Your task to perform on an android device: Search for "macbook pro 15 inch" on ebay.com, select the first entry, and add it to the cart. Image 0: 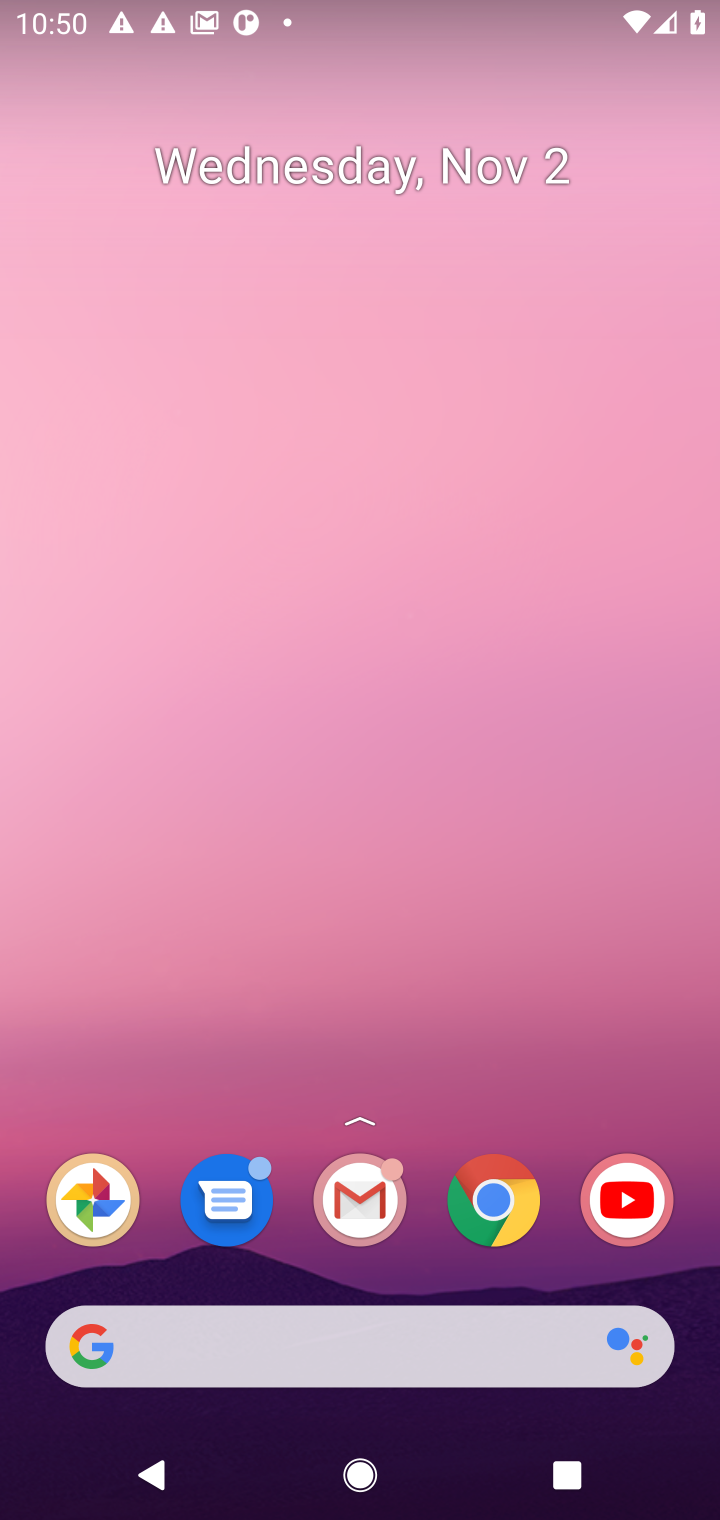
Step 0: click (497, 1182)
Your task to perform on an android device: Search for "macbook pro 15 inch" on ebay.com, select the first entry, and add it to the cart. Image 1: 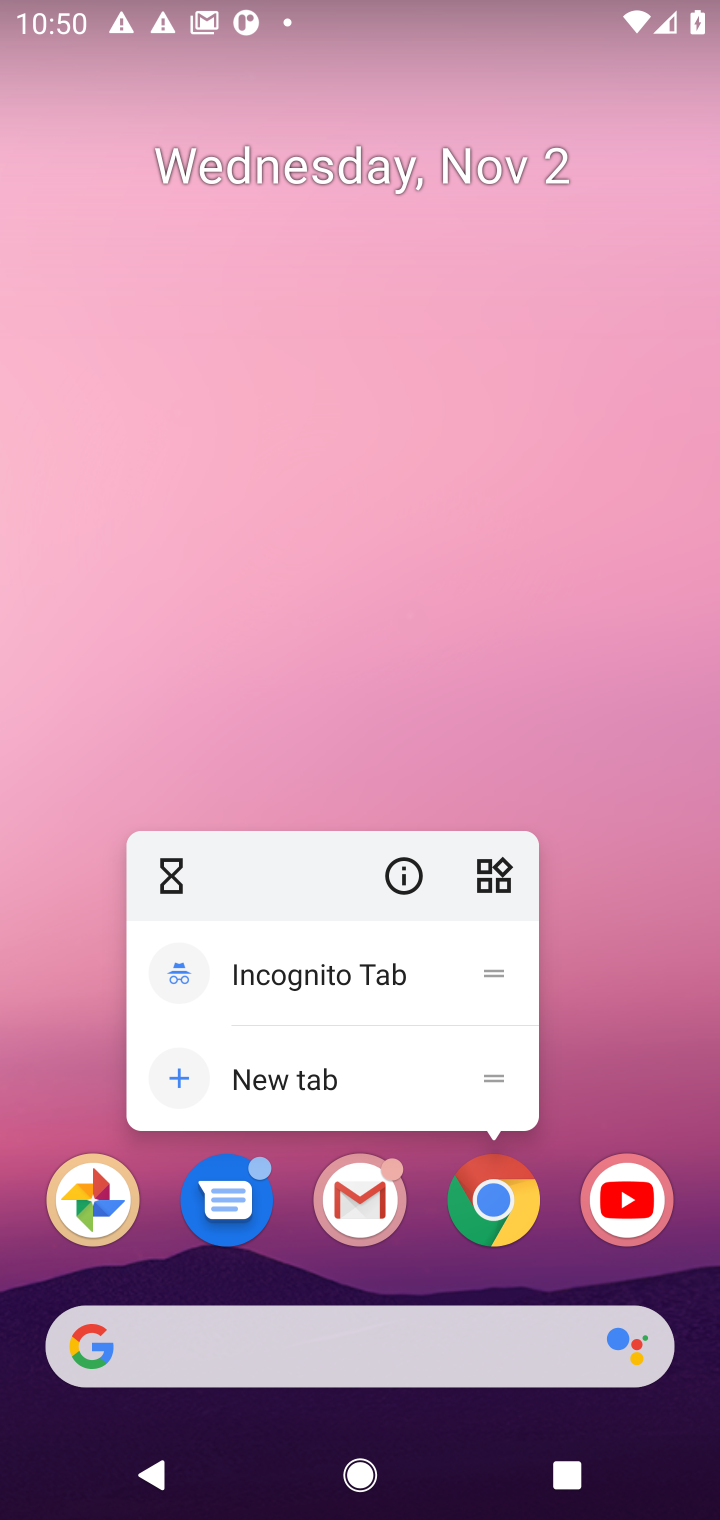
Step 1: click (497, 1182)
Your task to perform on an android device: Search for "macbook pro 15 inch" on ebay.com, select the first entry, and add it to the cart. Image 2: 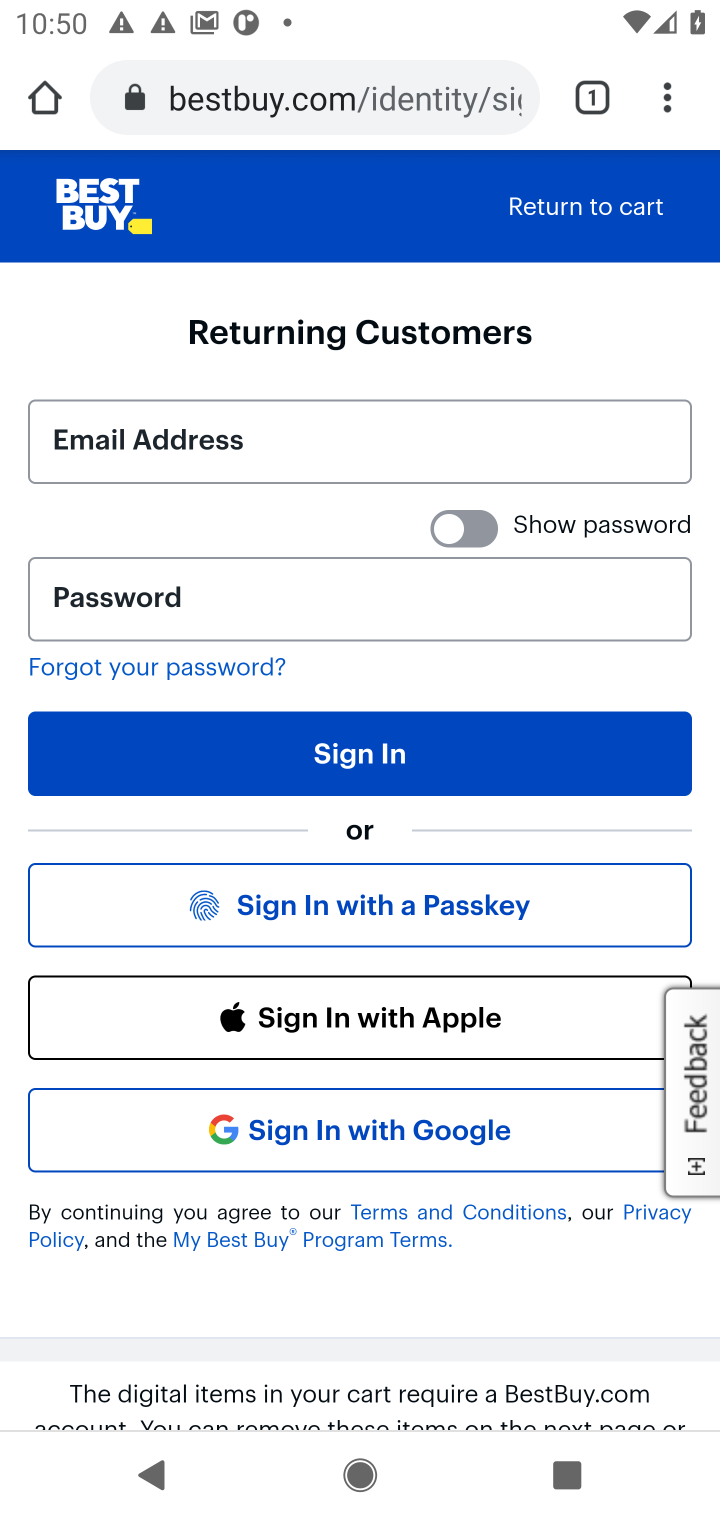
Step 2: click (404, 95)
Your task to perform on an android device: Search for "macbook pro 15 inch" on ebay.com, select the first entry, and add it to the cart. Image 3: 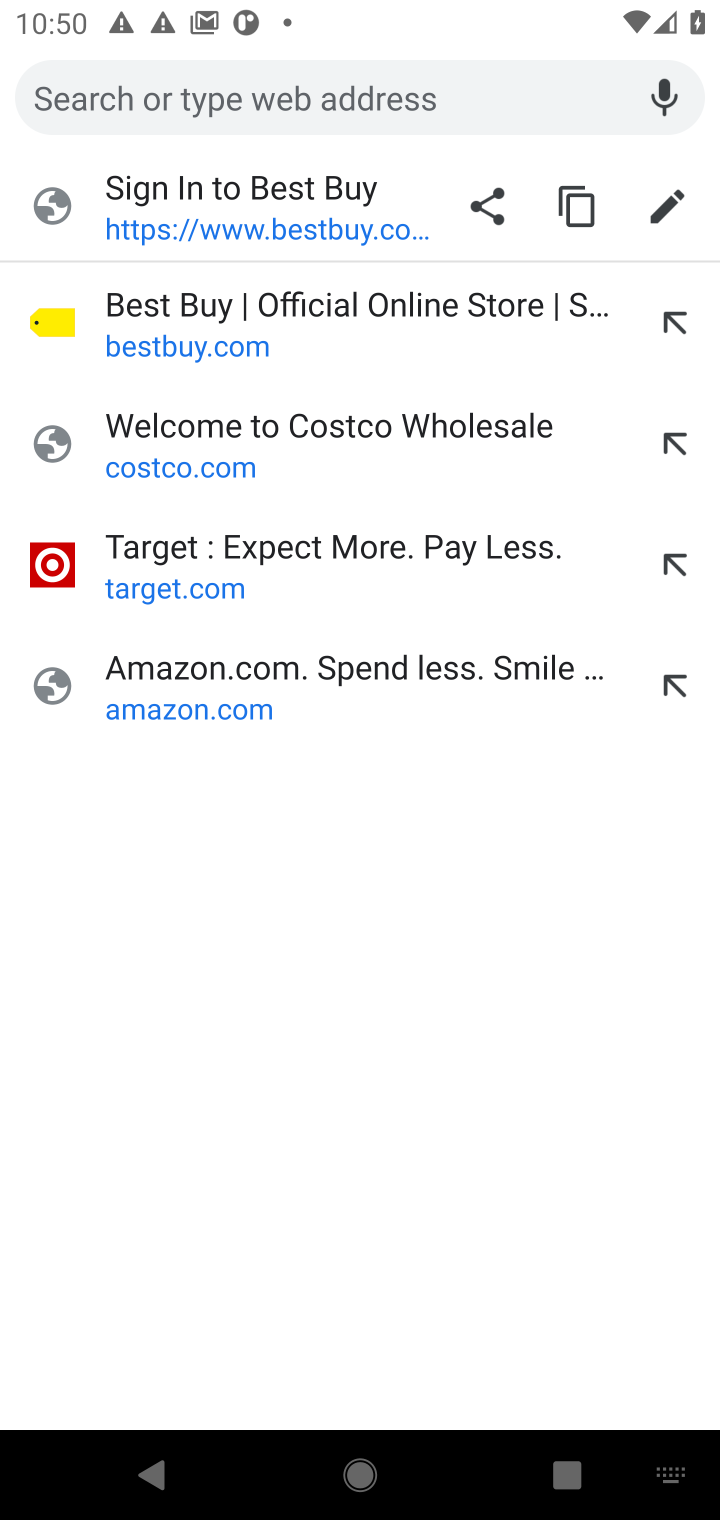
Step 3: type "ebay.com"
Your task to perform on an android device: Search for "macbook pro 15 inch" on ebay.com, select the first entry, and add it to the cart. Image 4: 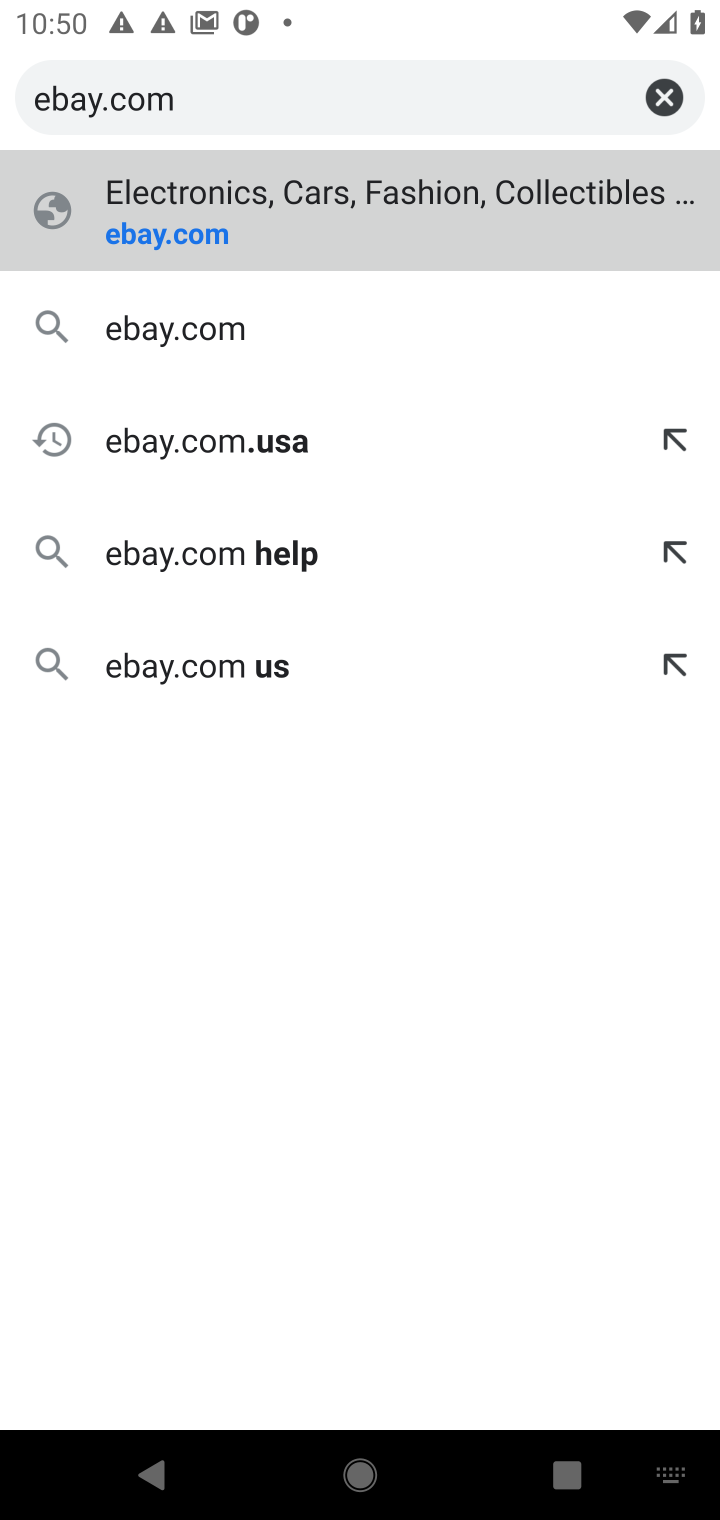
Step 4: press enter
Your task to perform on an android device: Search for "macbook pro 15 inch" on ebay.com, select the first entry, and add it to the cart. Image 5: 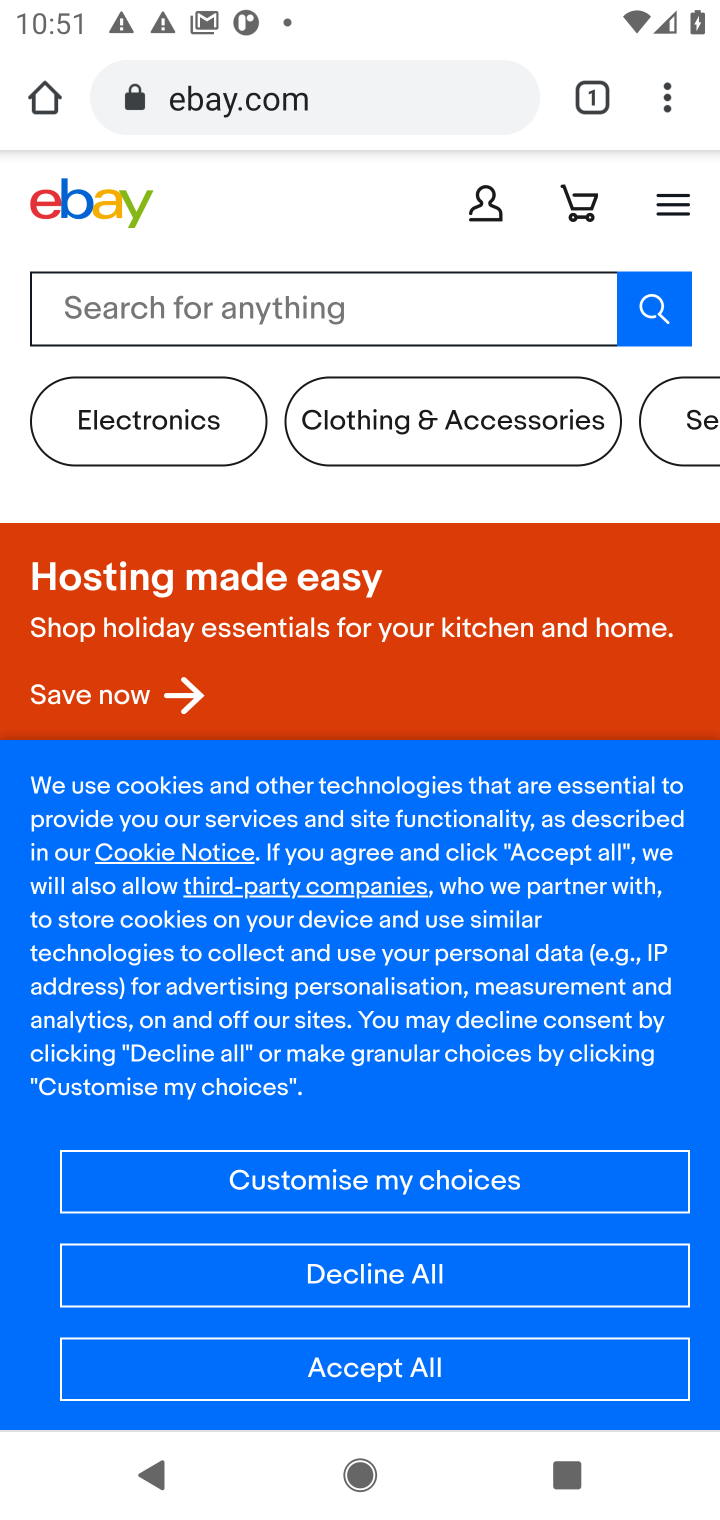
Step 5: click (312, 298)
Your task to perform on an android device: Search for "macbook pro 15 inch" on ebay.com, select the first entry, and add it to the cart. Image 6: 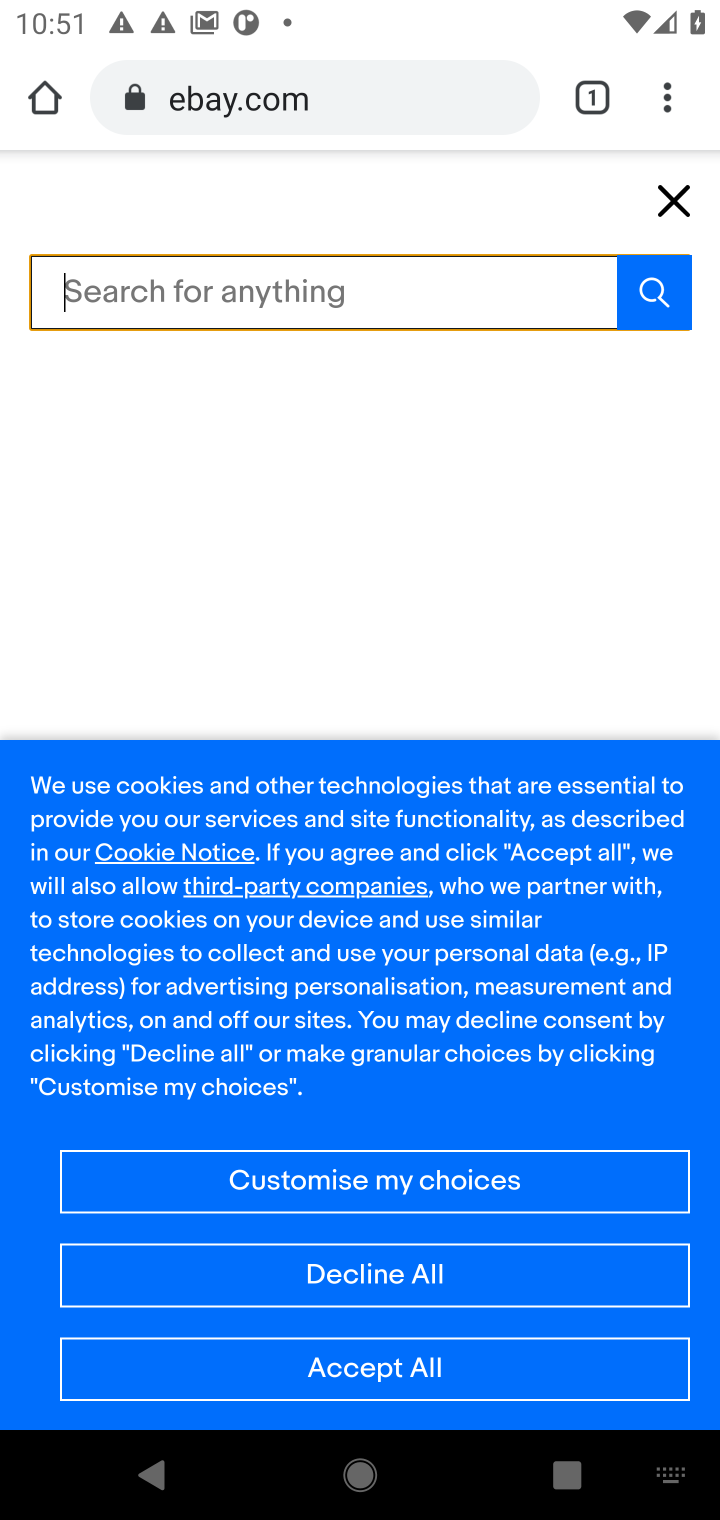
Step 6: type "macbook pro 15 inch"
Your task to perform on an android device: Search for "macbook pro 15 inch" on ebay.com, select the first entry, and add it to the cart. Image 7: 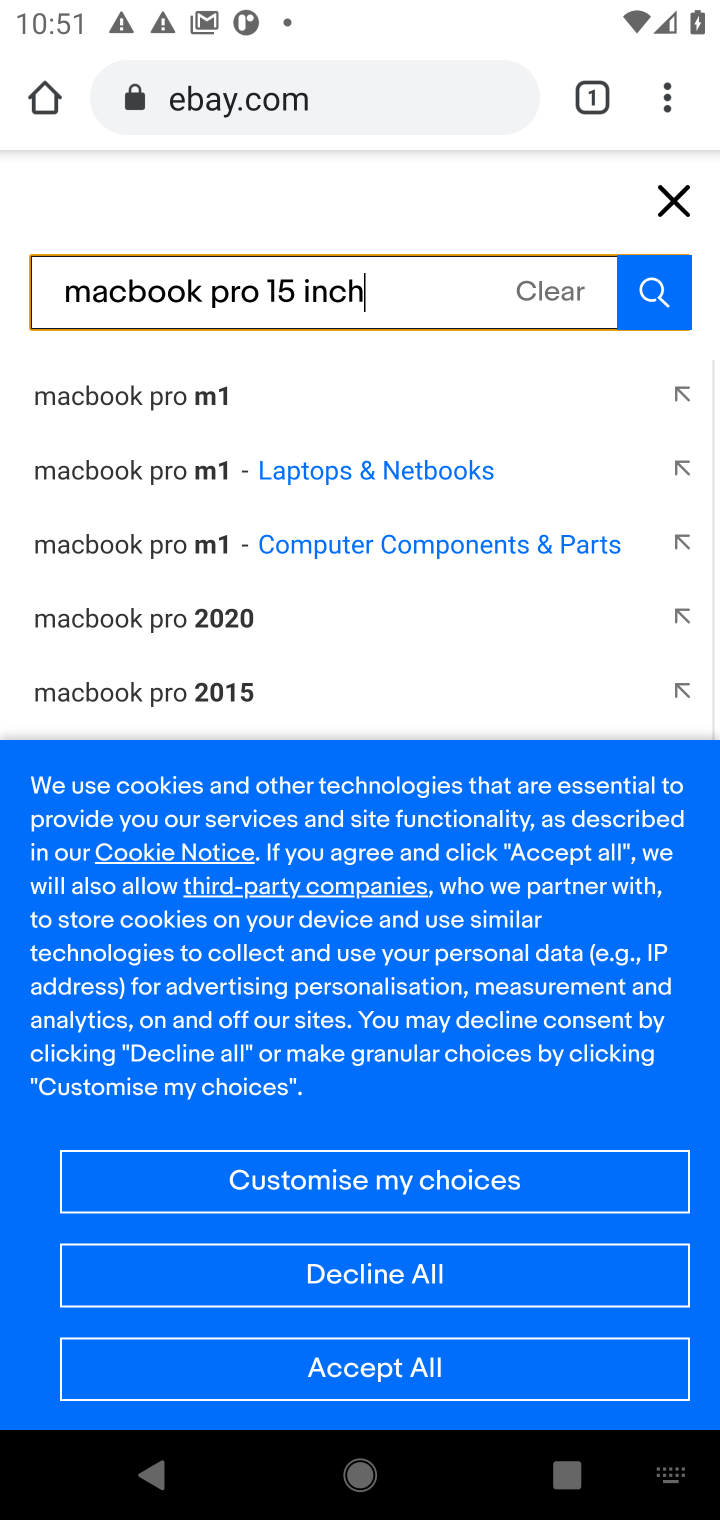
Step 7: press enter
Your task to perform on an android device: Search for "macbook pro 15 inch" on ebay.com, select the first entry, and add it to the cart. Image 8: 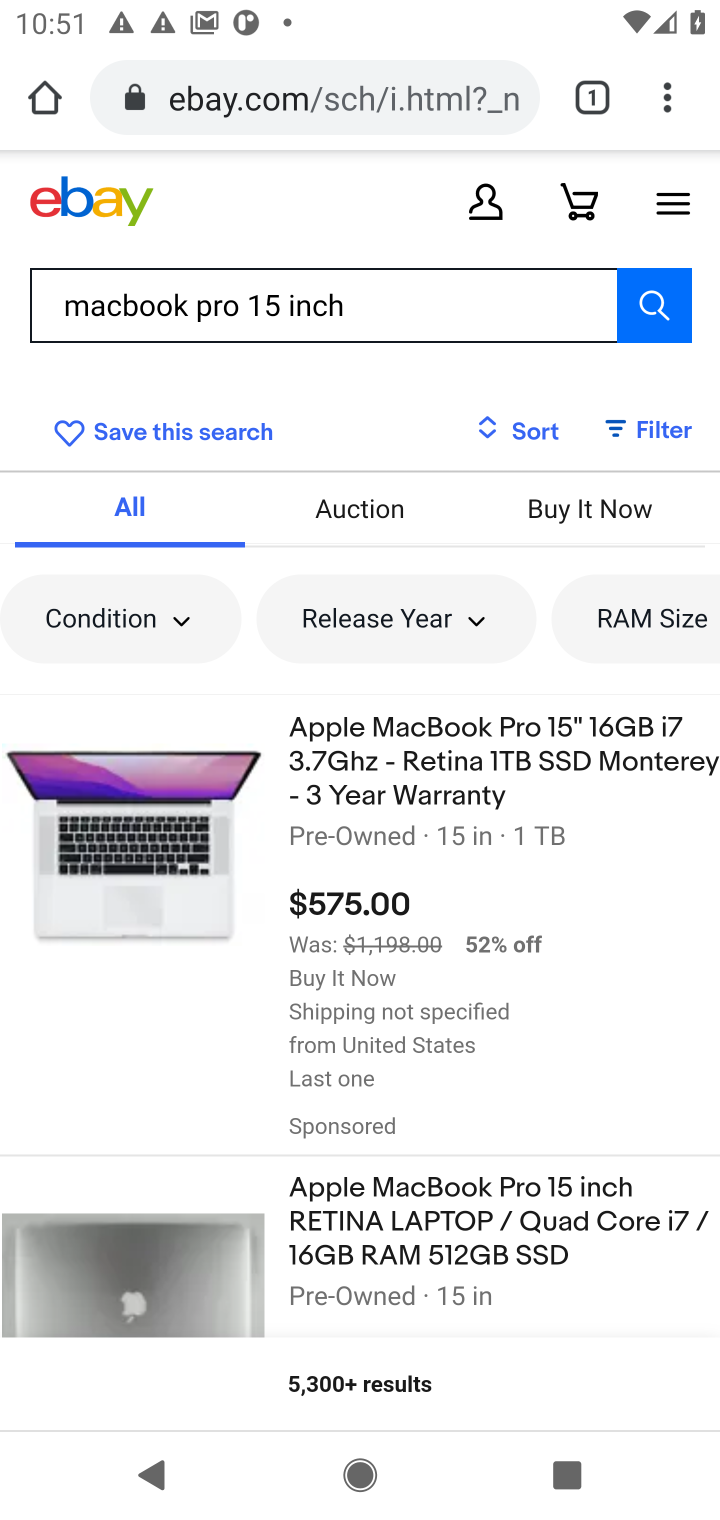
Step 8: click (148, 825)
Your task to perform on an android device: Search for "macbook pro 15 inch" on ebay.com, select the first entry, and add it to the cart. Image 9: 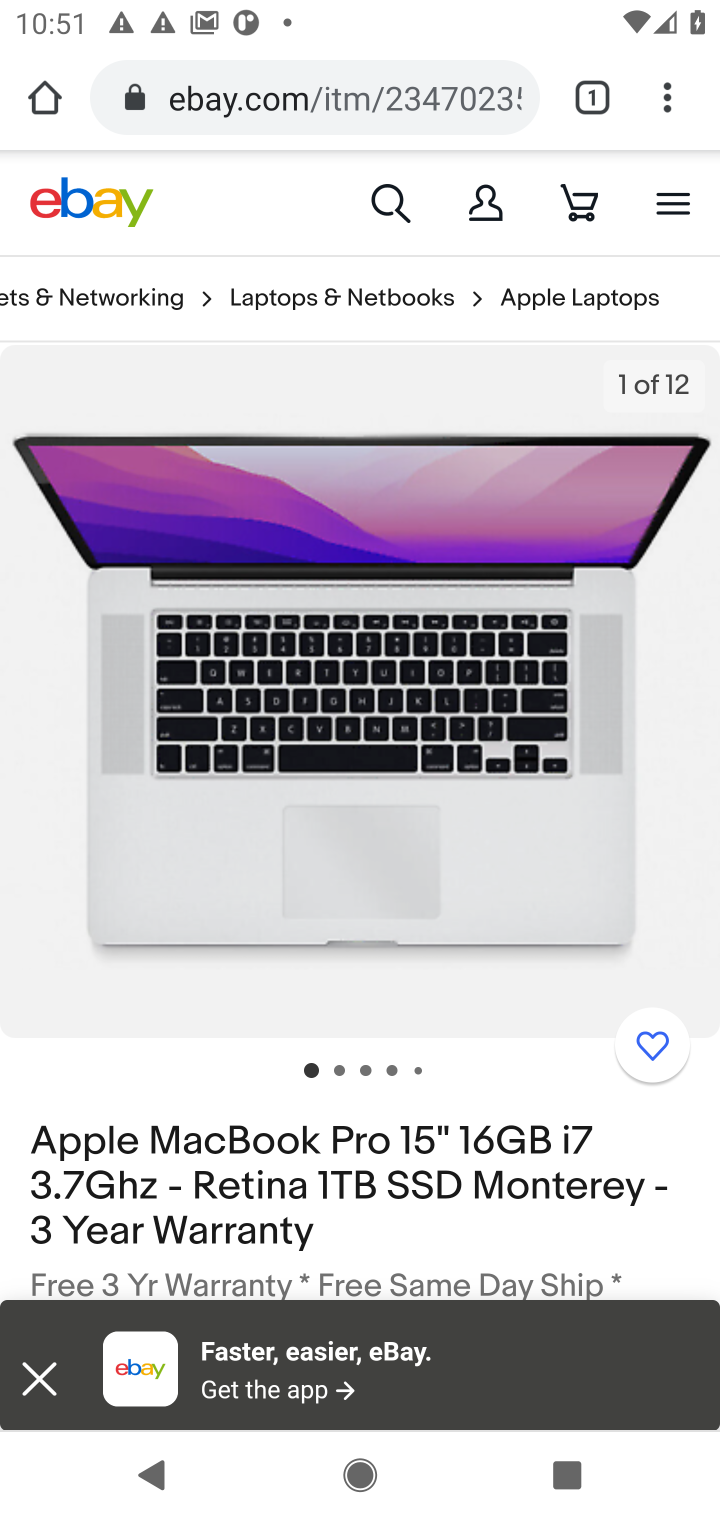
Step 9: drag from (405, 930) to (428, 465)
Your task to perform on an android device: Search for "macbook pro 15 inch" on ebay.com, select the first entry, and add it to the cart. Image 10: 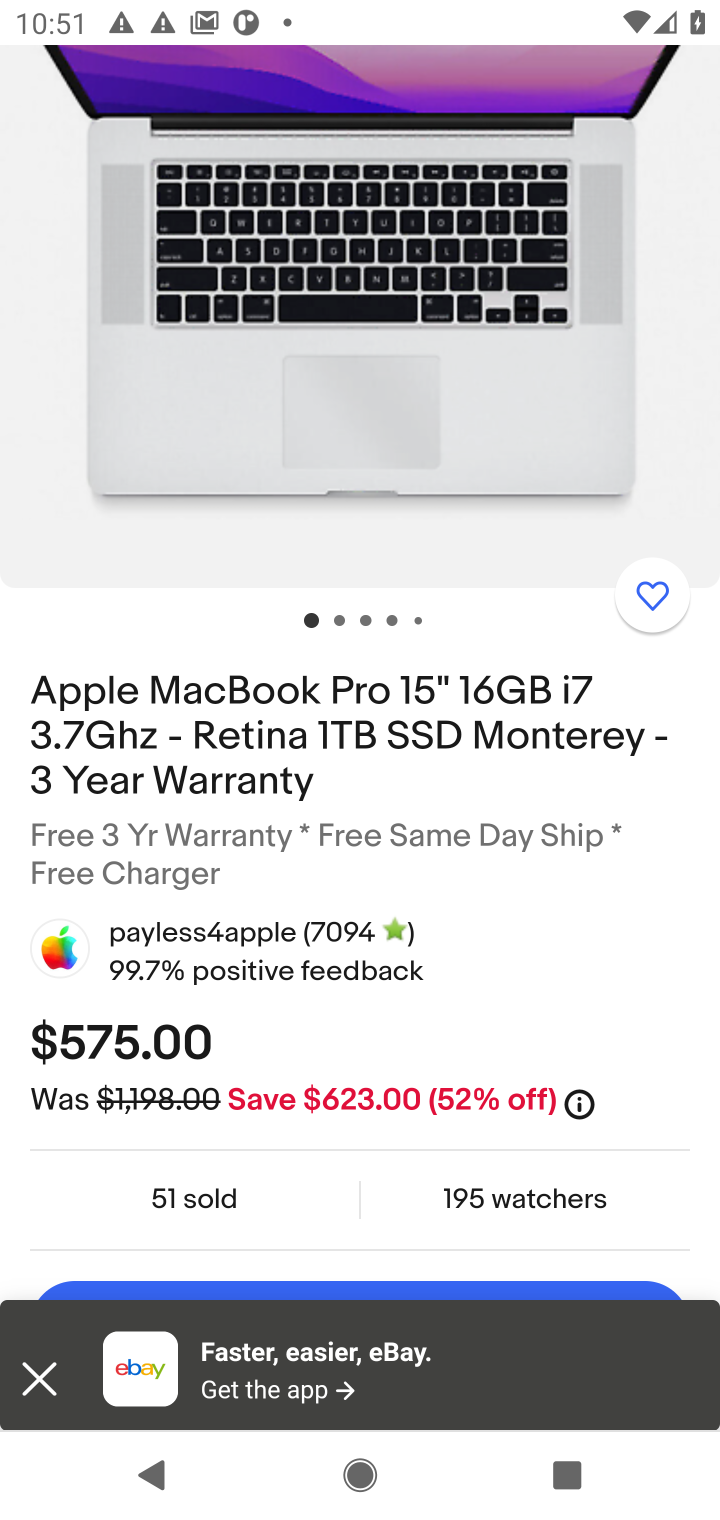
Step 10: drag from (469, 1102) to (615, 550)
Your task to perform on an android device: Search for "macbook pro 15 inch" on ebay.com, select the first entry, and add it to the cart. Image 11: 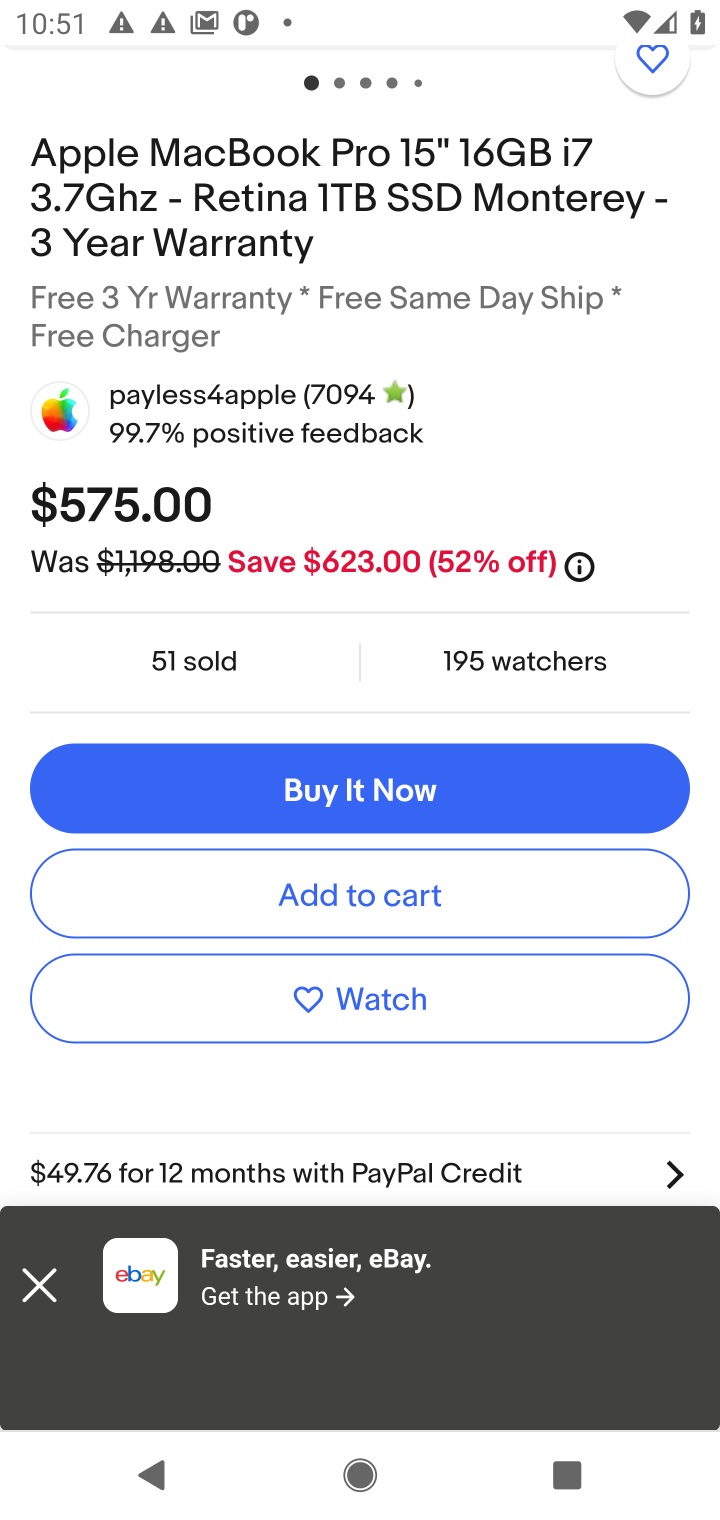
Step 11: click (485, 883)
Your task to perform on an android device: Search for "macbook pro 15 inch" on ebay.com, select the first entry, and add it to the cart. Image 12: 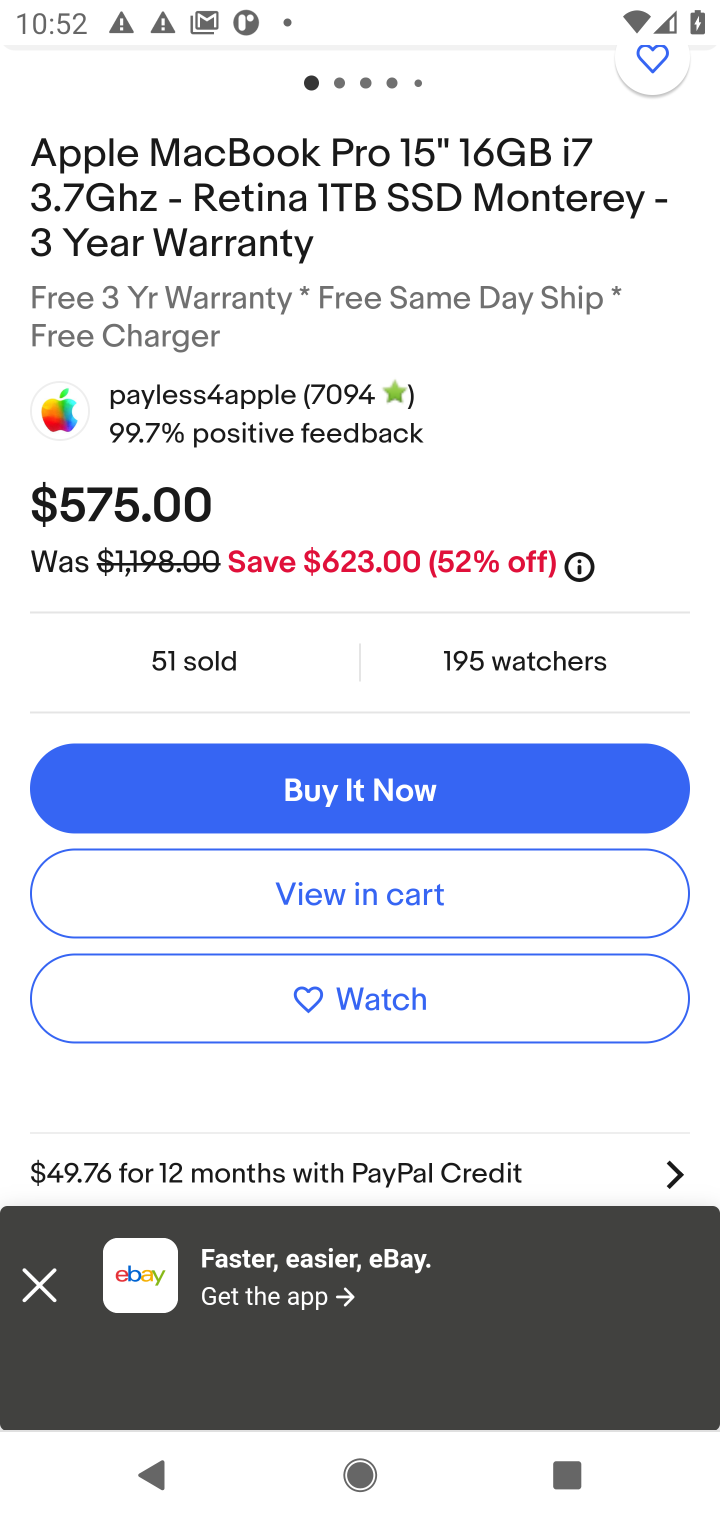
Step 12: click (394, 900)
Your task to perform on an android device: Search for "macbook pro 15 inch" on ebay.com, select the first entry, and add it to the cart. Image 13: 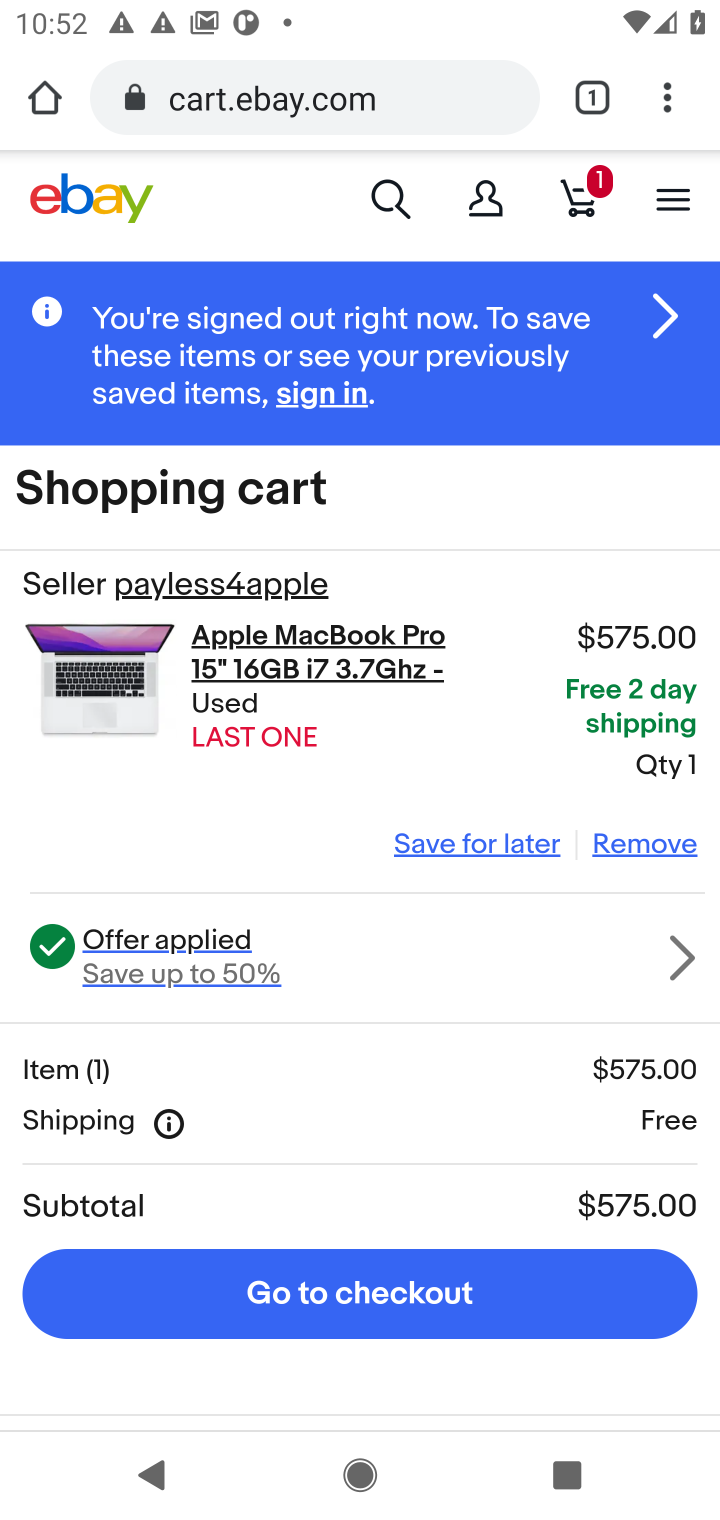
Step 13: task complete